Your task to perform on an android device: Open notification settings Image 0: 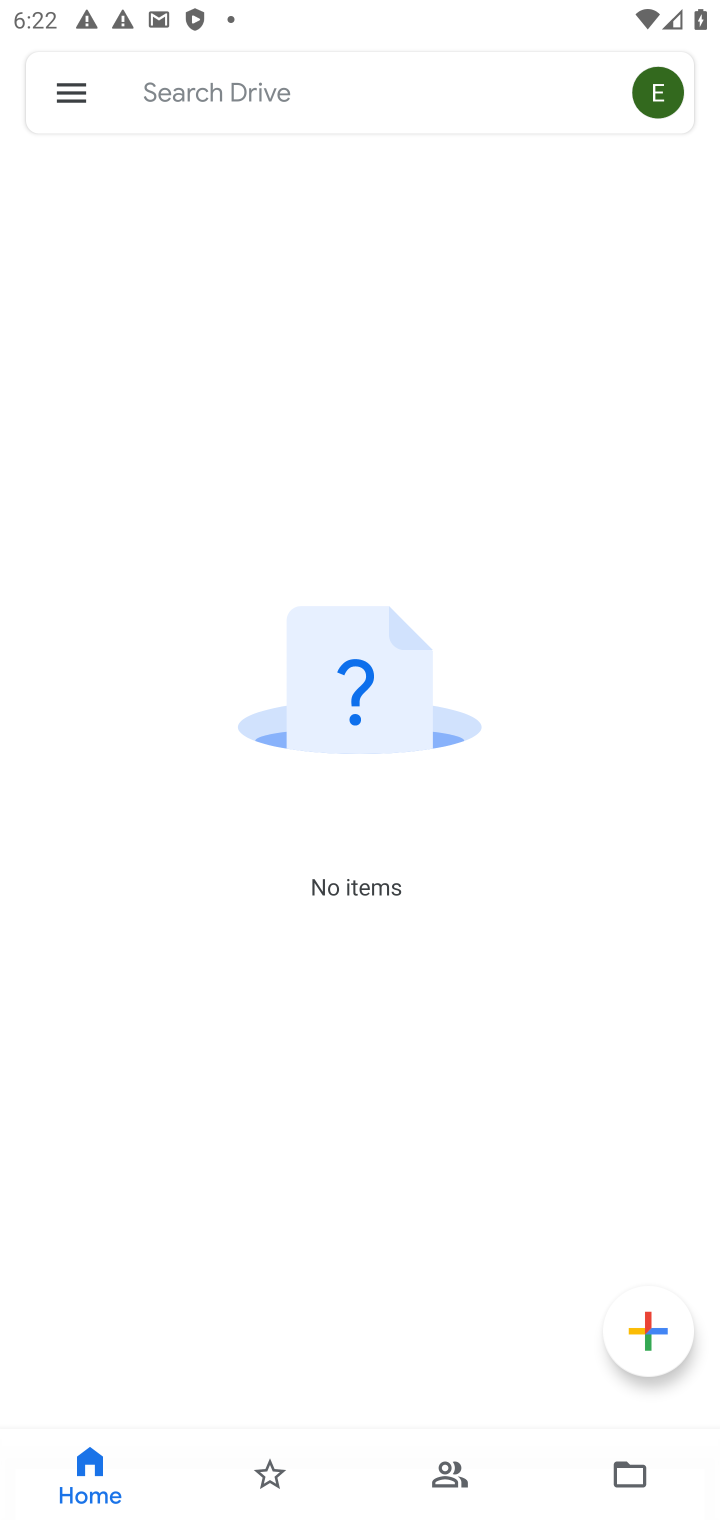
Step 0: press back button
Your task to perform on an android device: Open notification settings Image 1: 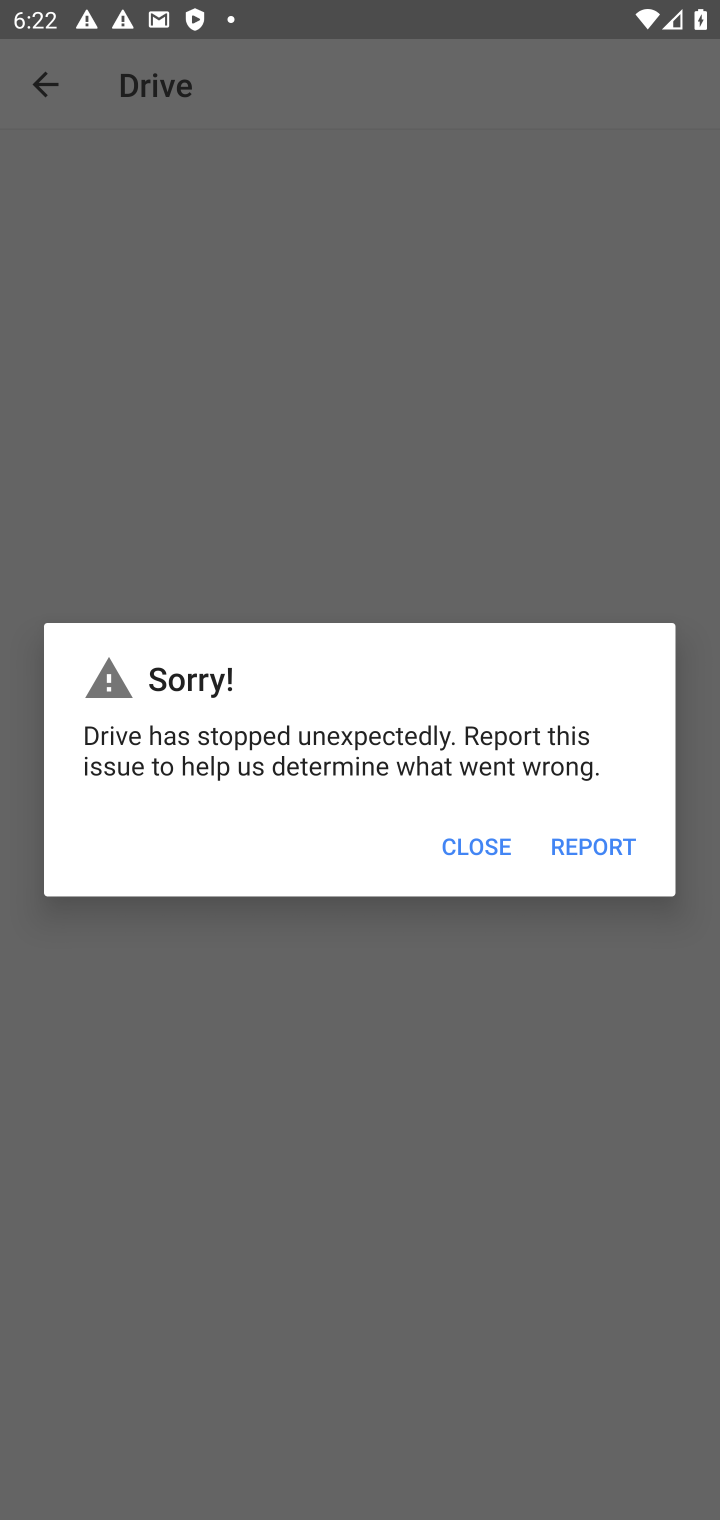
Step 1: press back button
Your task to perform on an android device: Open notification settings Image 2: 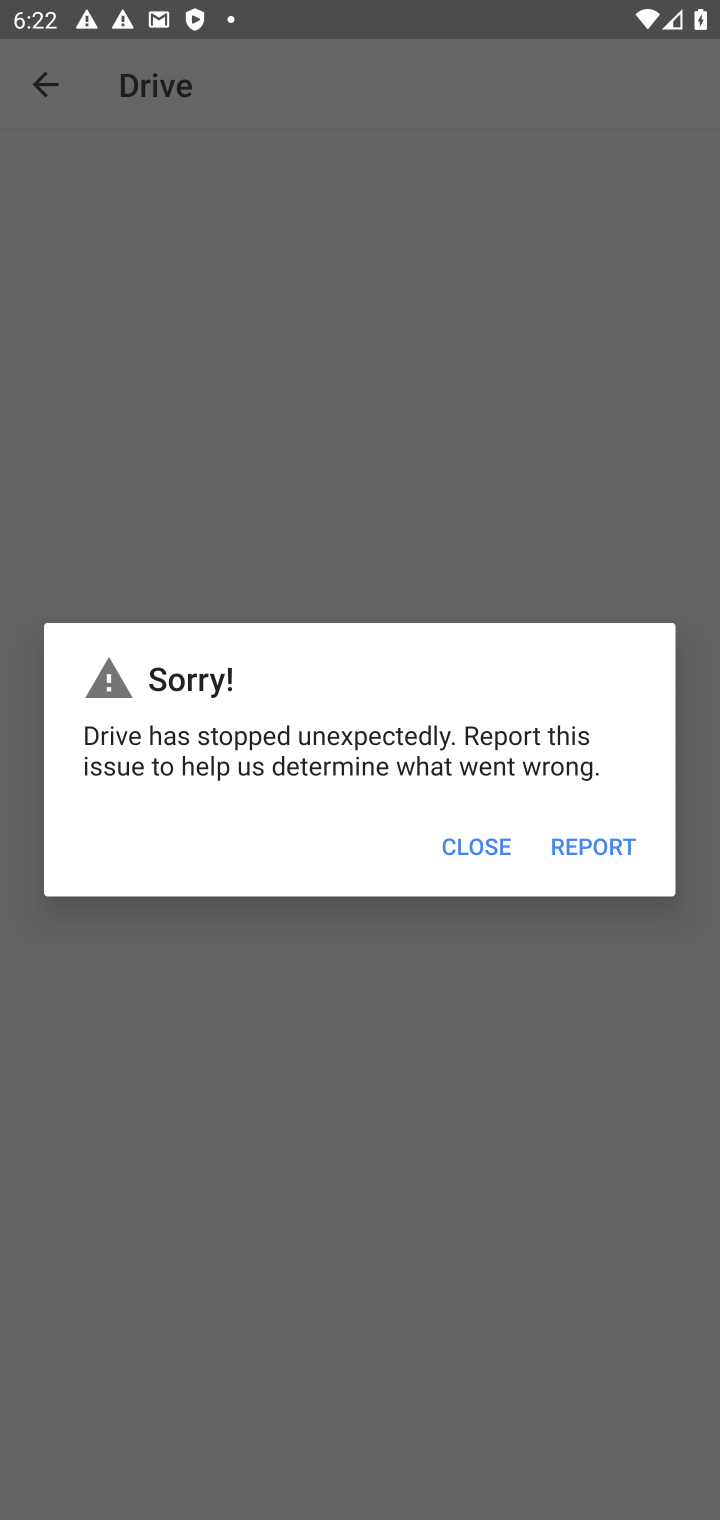
Step 2: press home button
Your task to perform on an android device: Open notification settings Image 3: 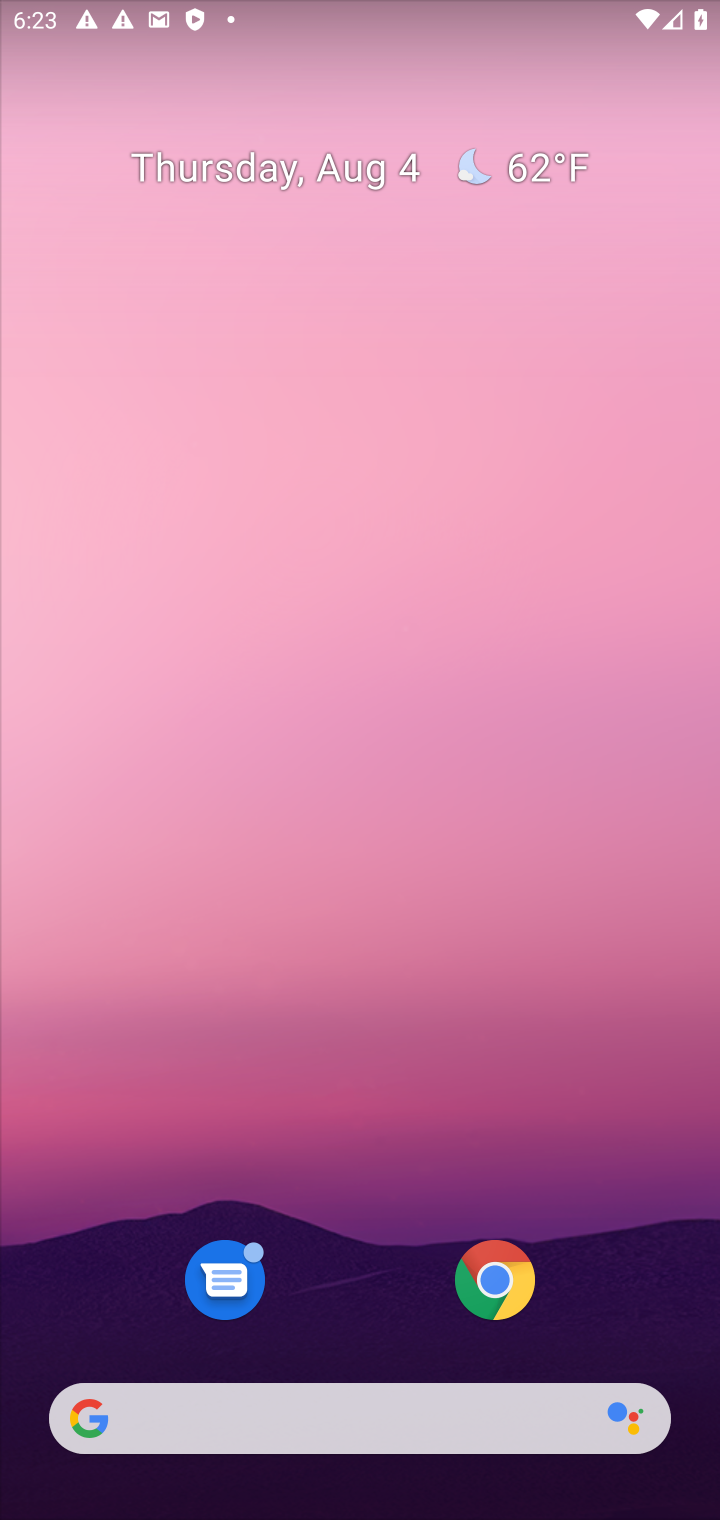
Step 3: drag from (484, 833) to (482, 549)
Your task to perform on an android device: Open notification settings Image 4: 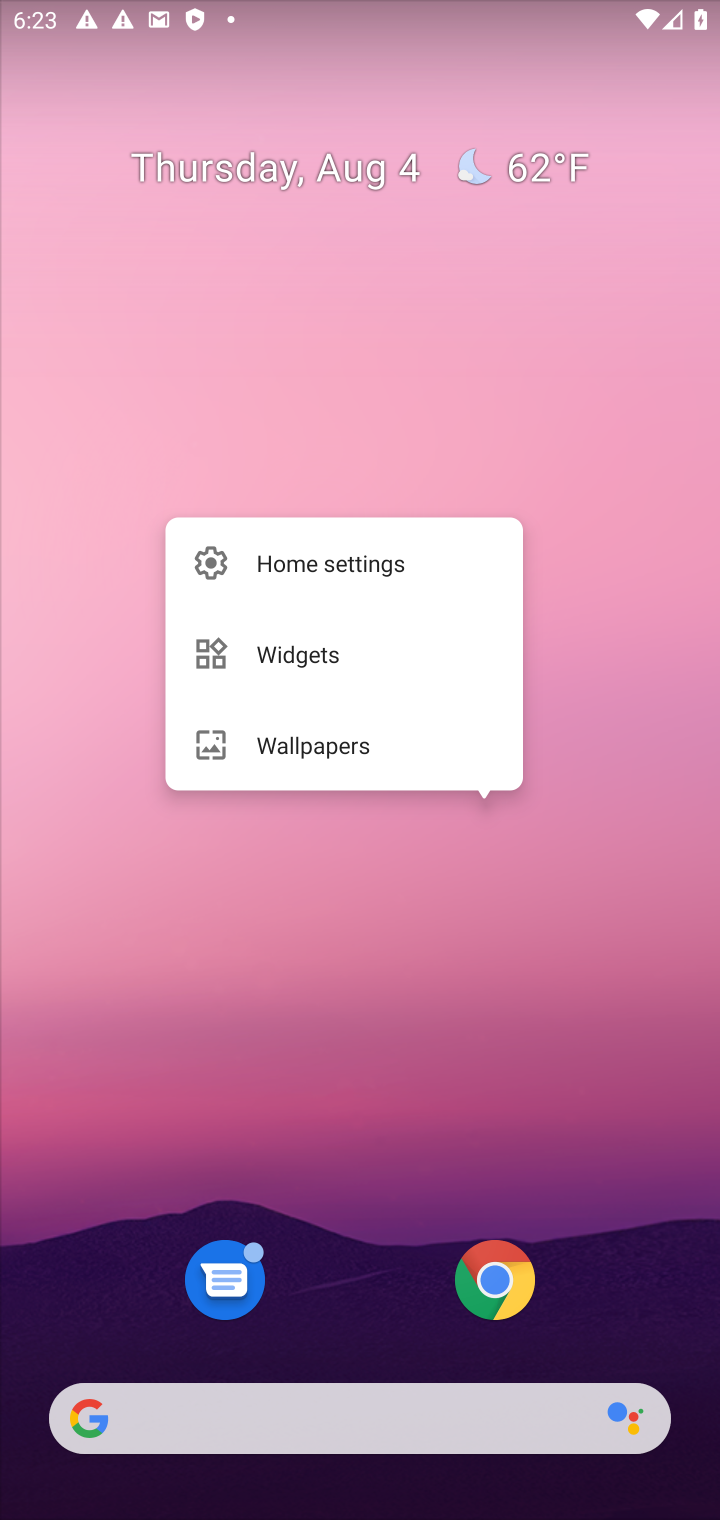
Step 4: click (383, 164)
Your task to perform on an android device: Open notification settings Image 5: 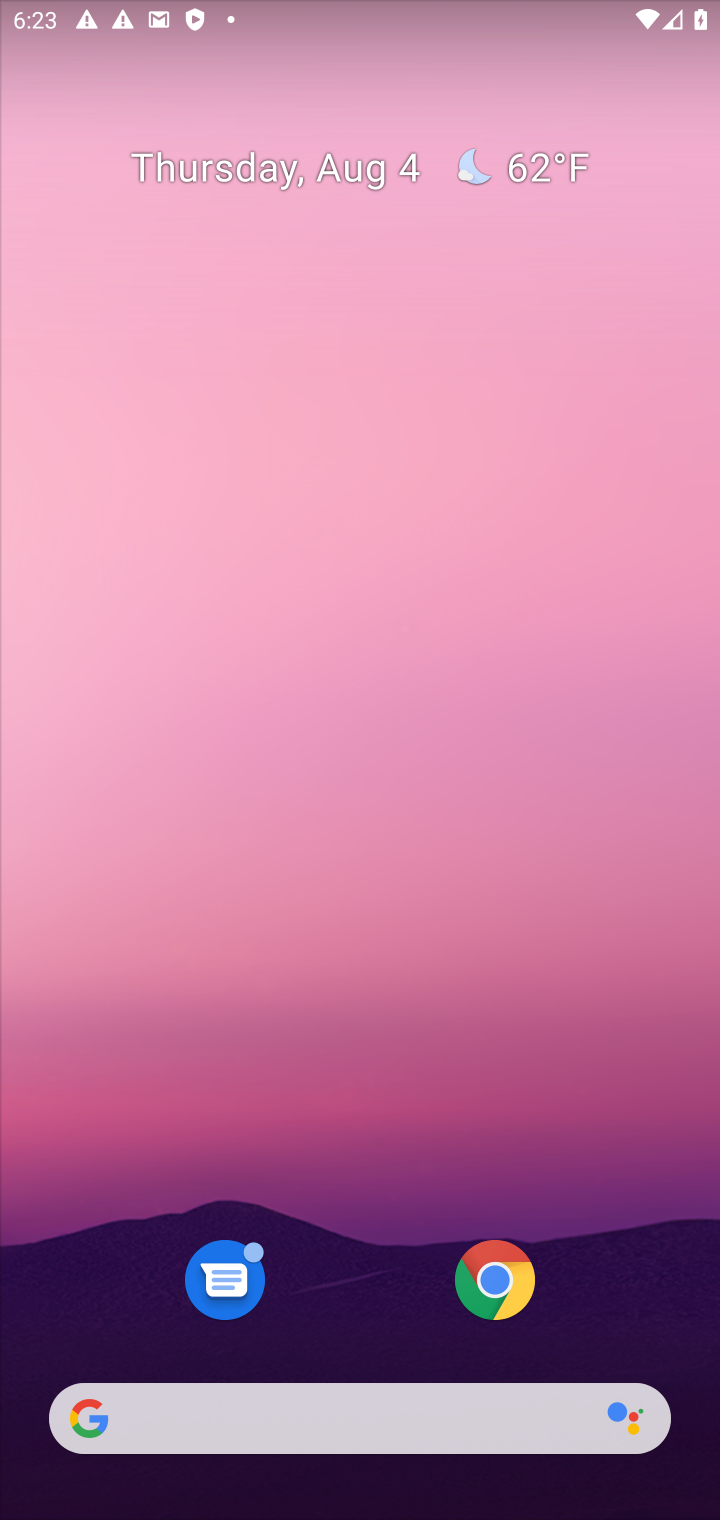
Step 5: drag from (351, 944) to (434, 176)
Your task to perform on an android device: Open notification settings Image 6: 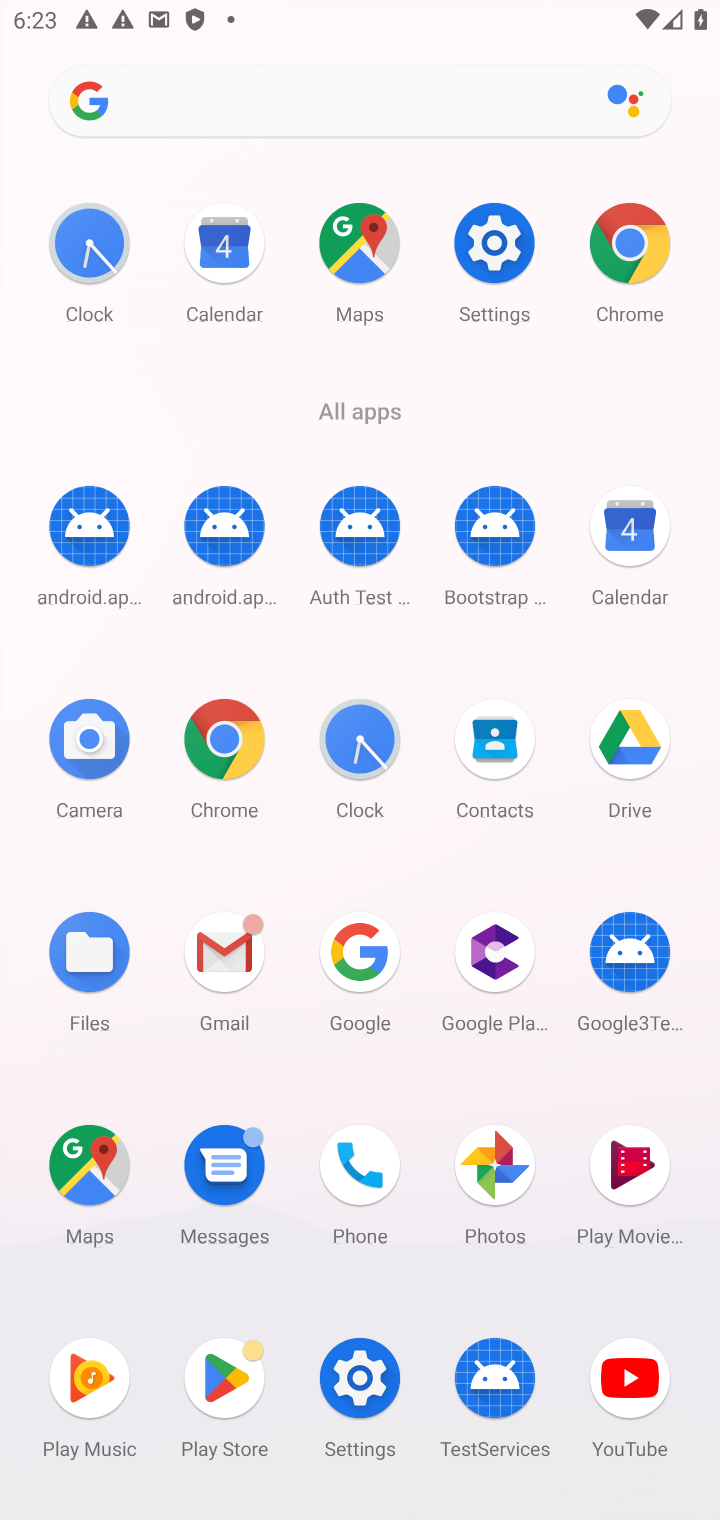
Step 6: click (484, 299)
Your task to perform on an android device: Open notification settings Image 7: 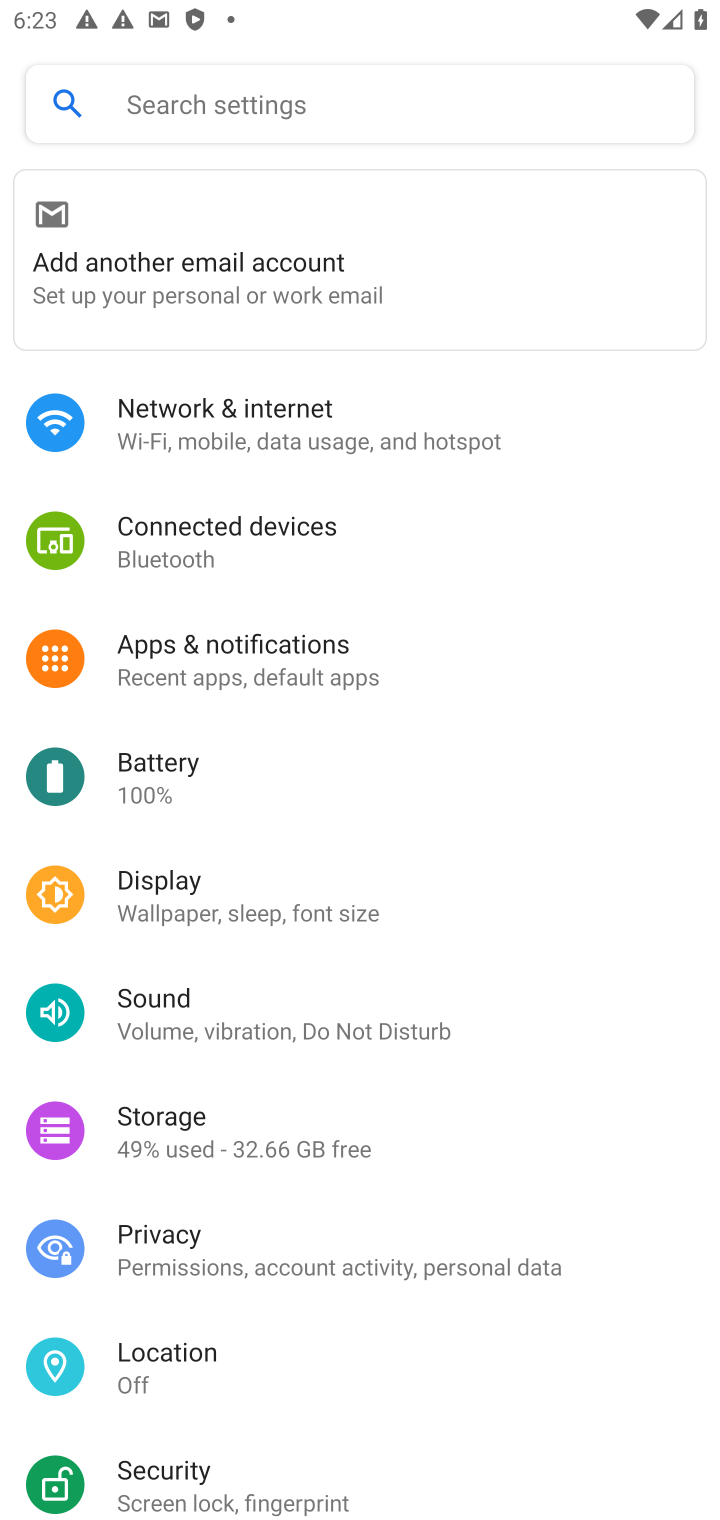
Step 7: click (229, 658)
Your task to perform on an android device: Open notification settings Image 8: 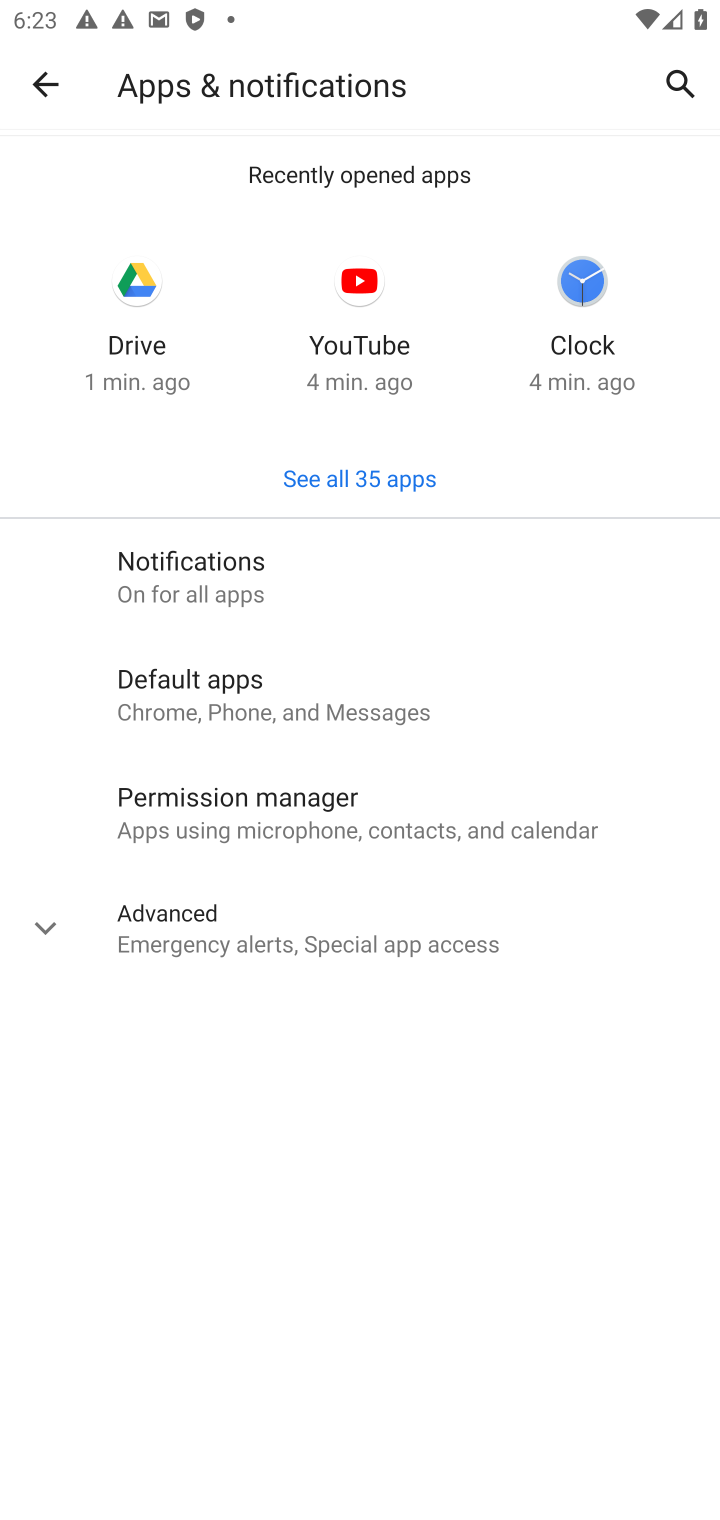
Step 8: task complete